Your task to perform on an android device: find photos in the google photos app Image 0: 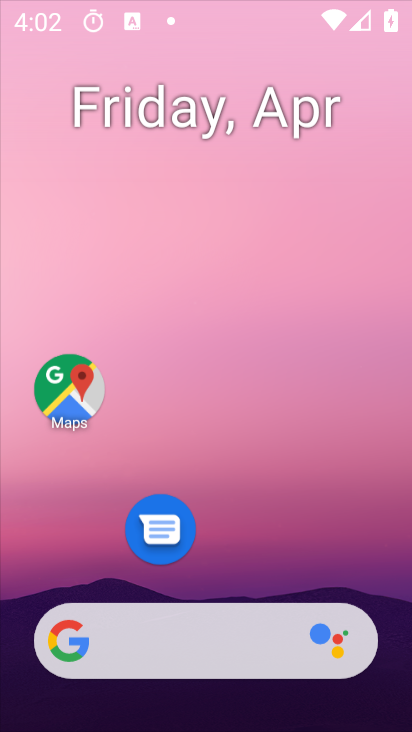
Step 0: drag from (262, 345) to (269, 135)
Your task to perform on an android device: find photos in the google photos app Image 1: 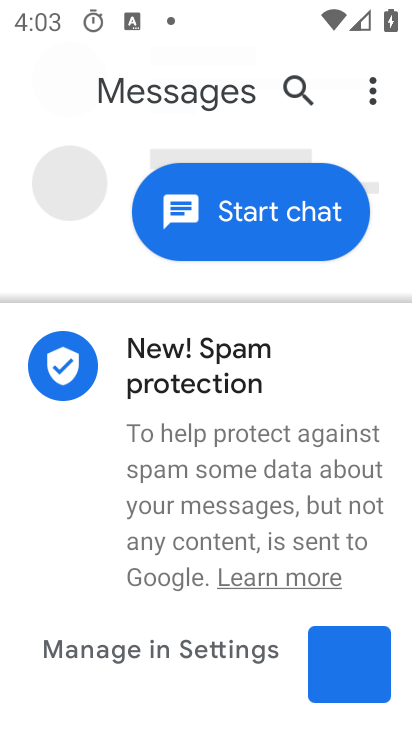
Step 1: press home button
Your task to perform on an android device: find photos in the google photos app Image 2: 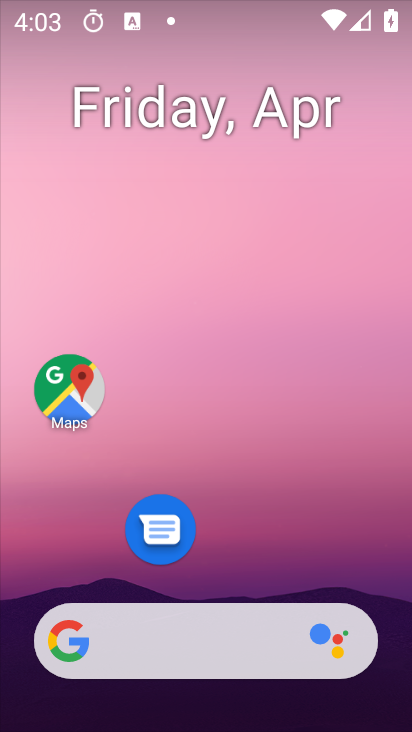
Step 2: drag from (270, 607) to (322, 65)
Your task to perform on an android device: find photos in the google photos app Image 3: 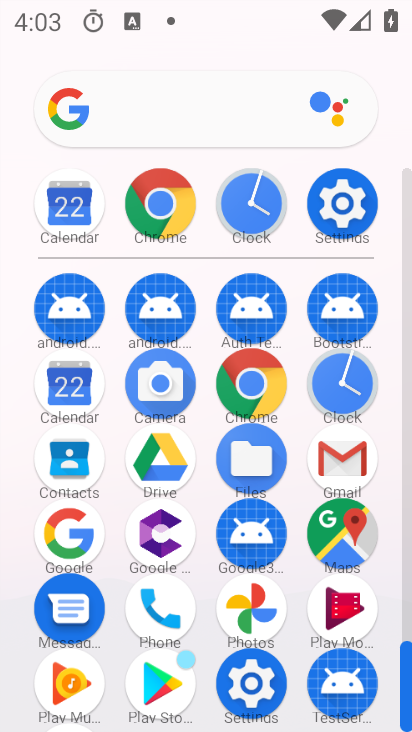
Step 3: click (257, 607)
Your task to perform on an android device: find photos in the google photos app Image 4: 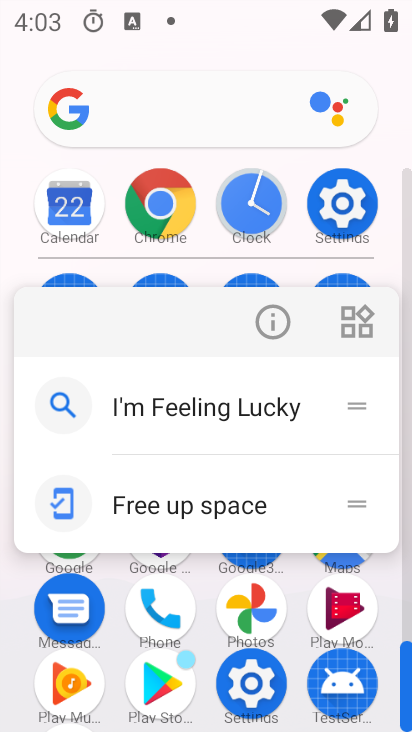
Step 4: click (259, 616)
Your task to perform on an android device: find photos in the google photos app Image 5: 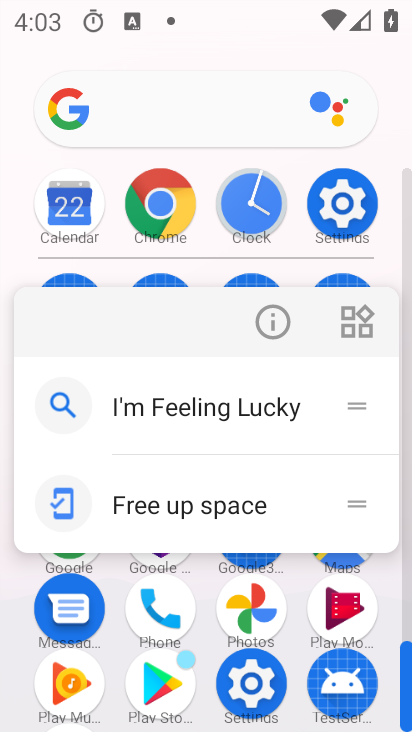
Step 5: click (264, 615)
Your task to perform on an android device: find photos in the google photos app Image 6: 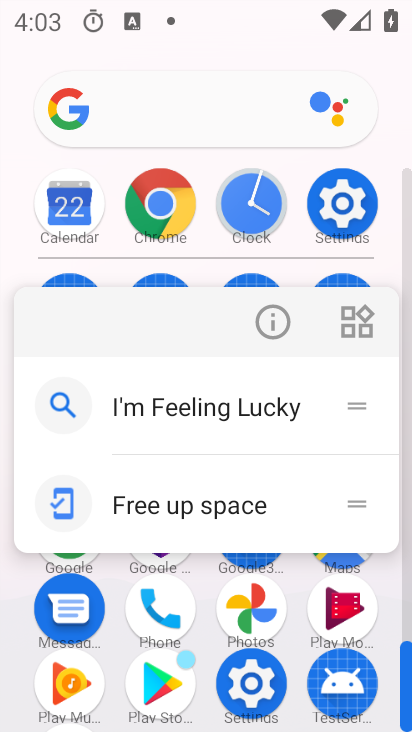
Step 6: click (251, 618)
Your task to perform on an android device: find photos in the google photos app Image 7: 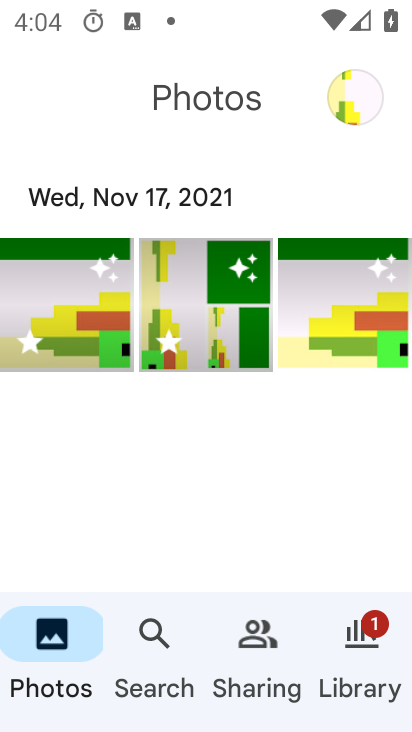
Step 7: task complete